Your task to perform on an android device: all mails in gmail Image 0: 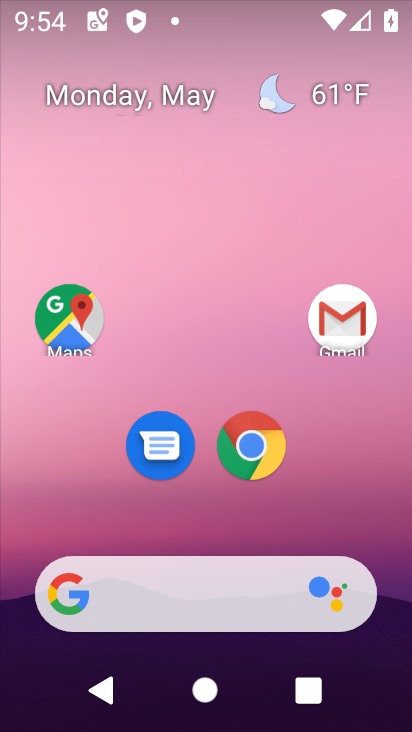
Step 0: drag from (379, 541) to (360, 182)
Your task to perform on an android device: all mails in gmail Image 1: 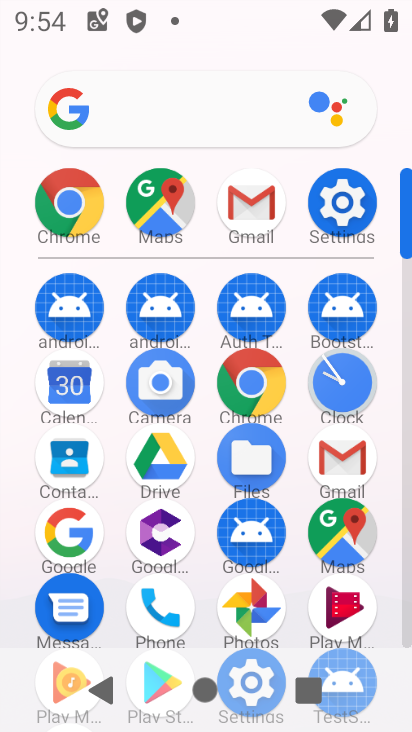
Step 1: click (357, 462)
Your task to perform on an android device: all mails in gmail Image 2: 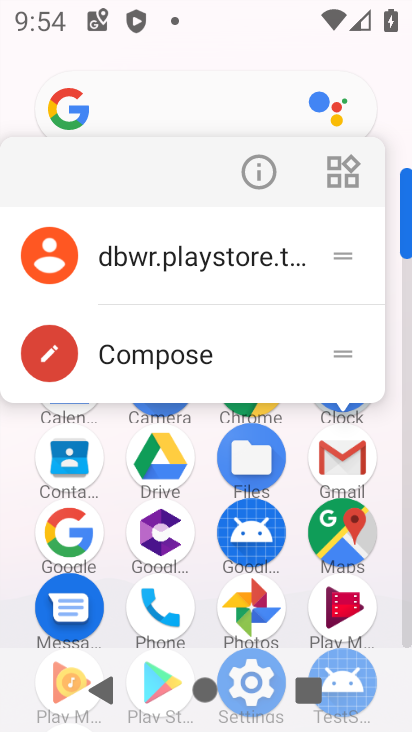
Step 2: click (341, 452)
Your task to perform on an android device: all mails in gmail Image 3: 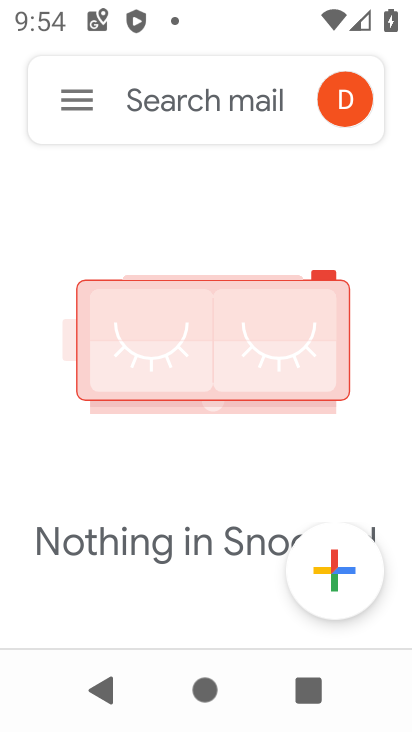
Step 3: click (82, 108)
Your task to perform on an android device: all mails in gmail Image 4: 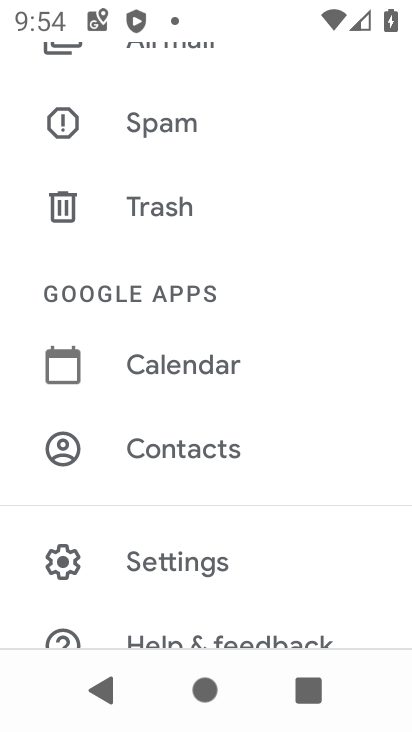
Step 4: drag from (284, 204) to (310, 342)
Your task to perform on an android device: all mails in gmail Image 5: 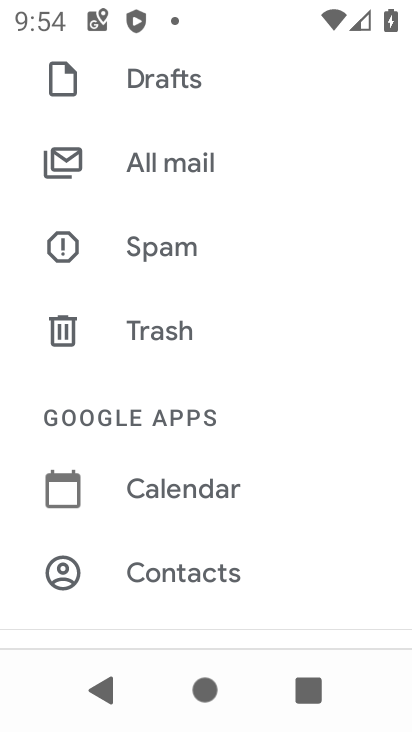
Step 5: drag from (310, 227) to (333, 424)
Your task to perform on an android device: all mails in gmail Image 6: 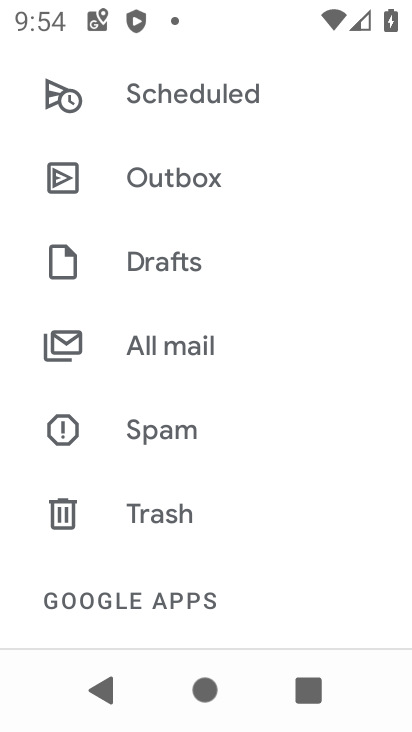
Step 6: drag from (321, 227) to (338, 371)
Your task to perform on an android device: all mails in gmail Image 7: 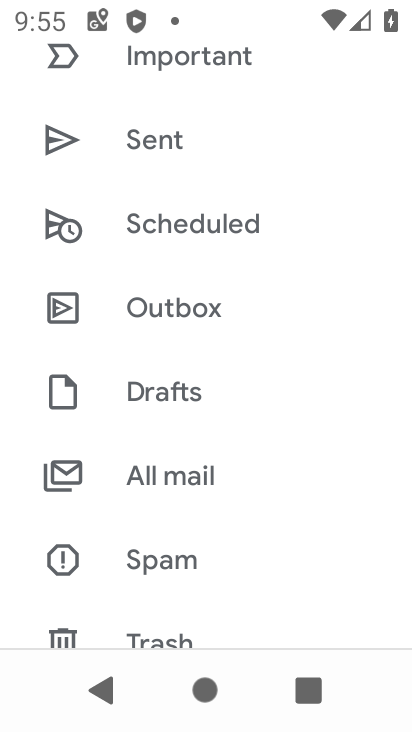
Step 7: drag from (319, 207) to (345, 367)
Your task to perform on an android device: all mails in gmail Image 8: 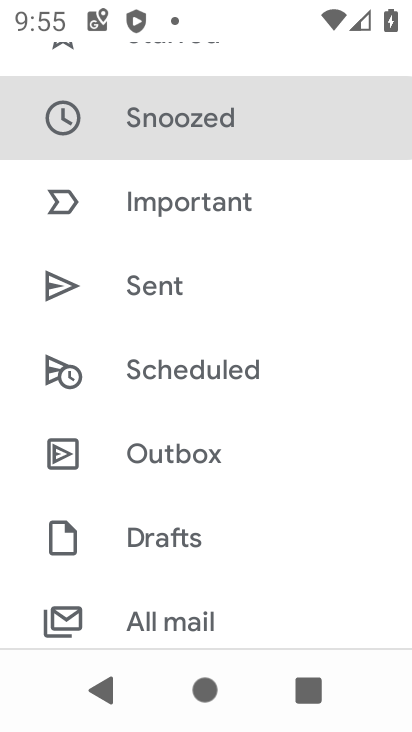
Step 8: drag from (308, 151) to (329, 337)
Your task to perform on an android device: all mails in gmail Image 9: 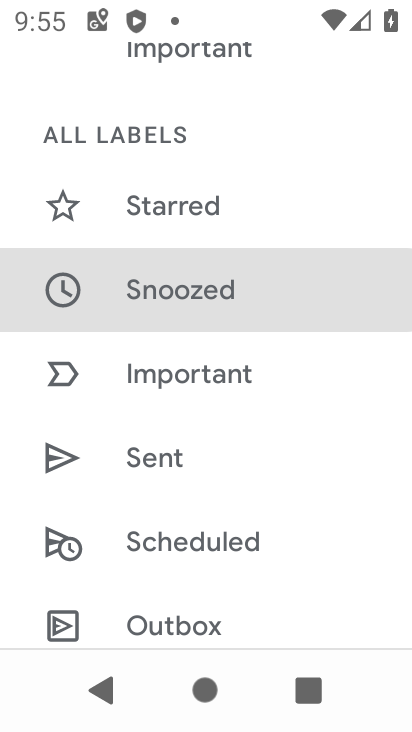
Step 9: drag from (302, 139) to (325, 256)
Your task to perform on an android device: all mails in gmail Image 10: 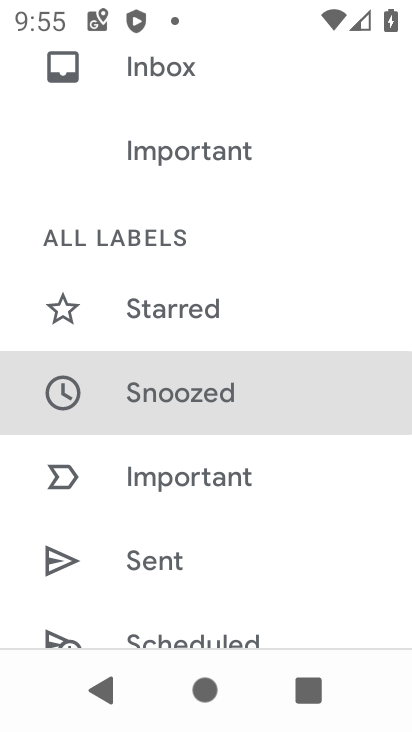
Step 10: drag from (328, 137) to (338, 340)
Your task to perform on an android device: all mails in gmail Image 11: 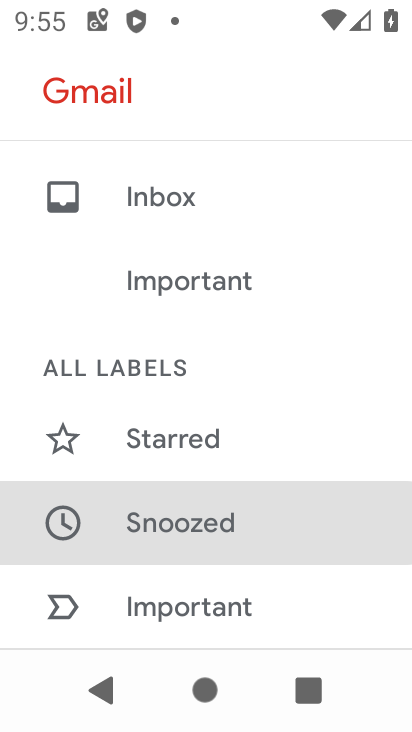
Step 11: drag from (328, 485) to (323, 269)
Your task to perform on an android device: all mails in gmail Image 12: 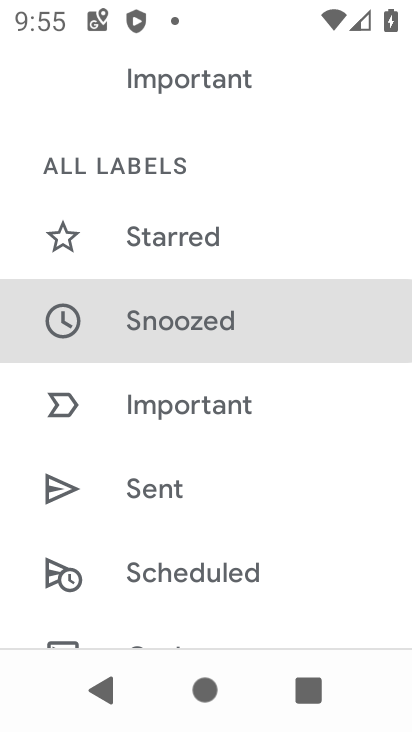
Step 12: drag from (332, 487) to (316, 359)
Your task to perform on an android device: all mails in gmail Image 13: 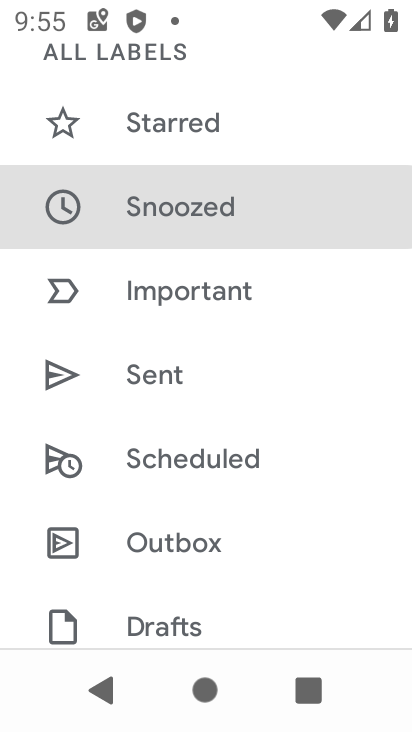
Step 13: drag from (328, 551) to (311, 340)
Your task to perform on an android device: all mails in gmail Image 14: 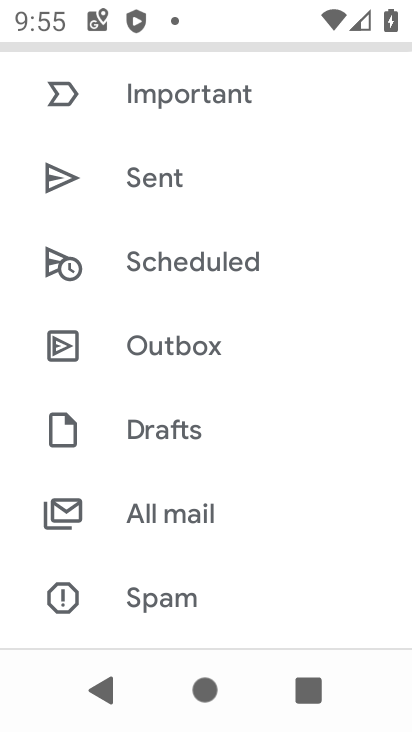
Step 14: click (198, 517)
Your task to perform on an android device: all mails in gmail Image 15: 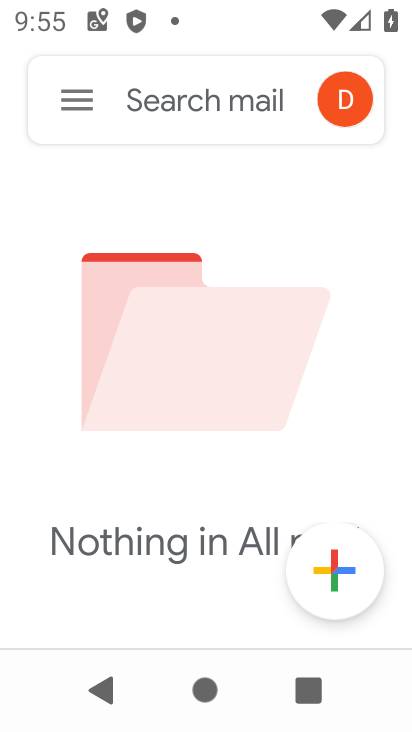
Step 15: task complete